Your task to perform on an android device: Open Google Image 0: 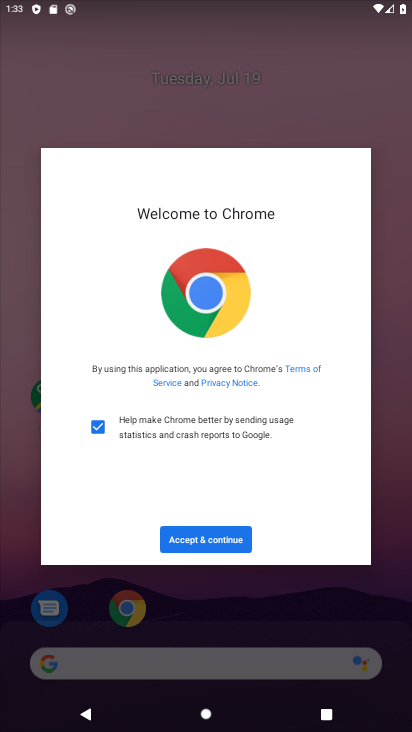
Step 0: press home button
Your task to perform on an android device: Open Google Image 1: 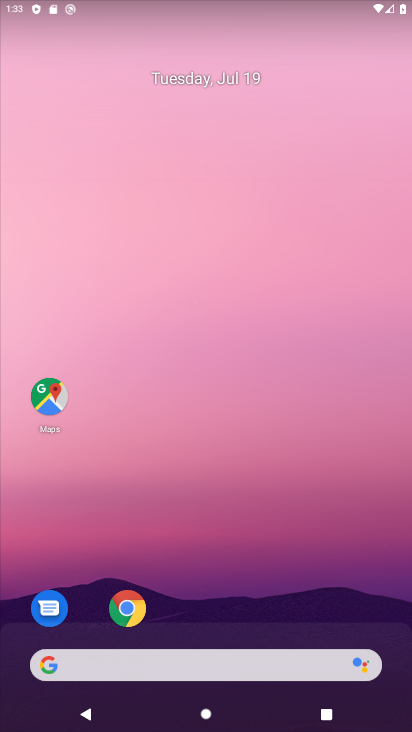
Step 1: drag from (223, 637) to (281, 309)
Your task to perform on an android device: Open Google Image 2: 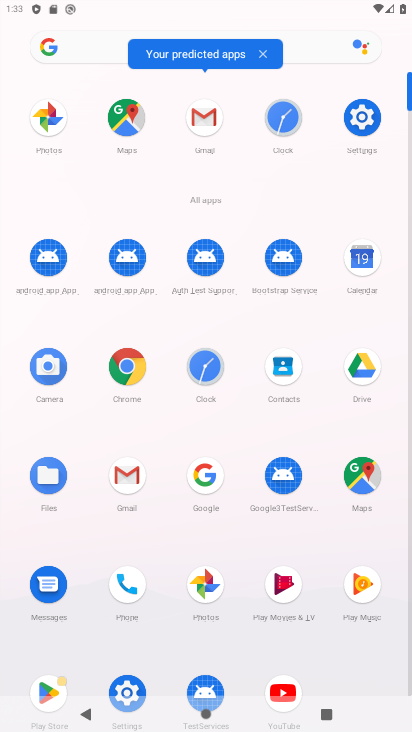
Step 2: click (215, 480)
Your task to perform on an android device: Open Google Image 3: 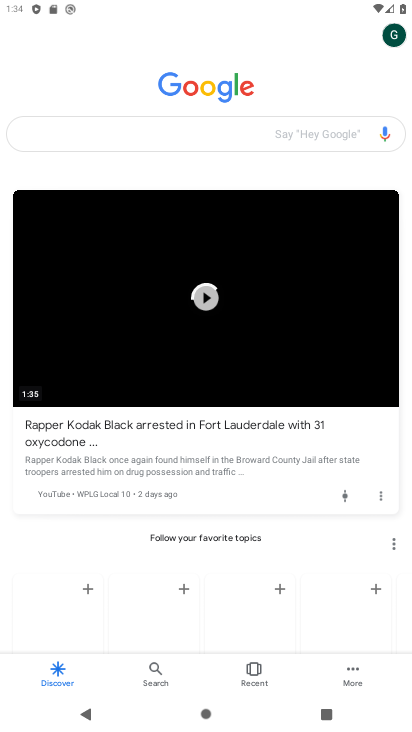
Step 3: task complete